Your task to perform on an android device: Toggle the flashlight Image 0: 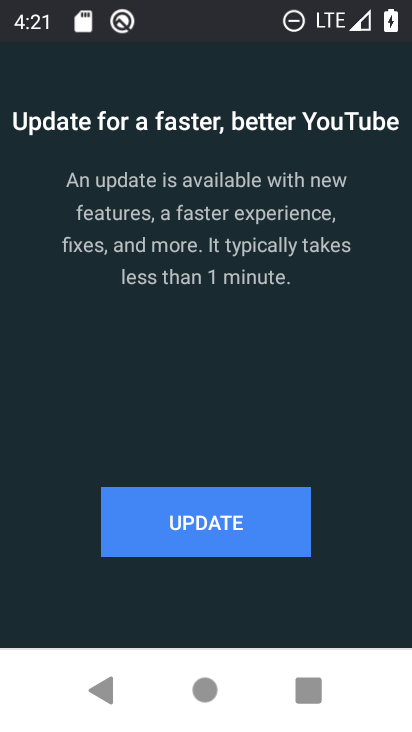
Step 0: press home button
Your task to perform on an android device: Toggle the flashlight Image 1: 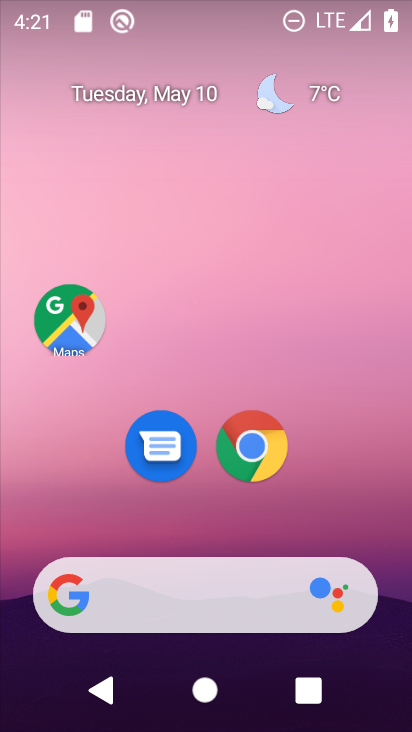
Step 1: task complete